Your task to perform on an android device: see creations saved in the google photos Image 0: 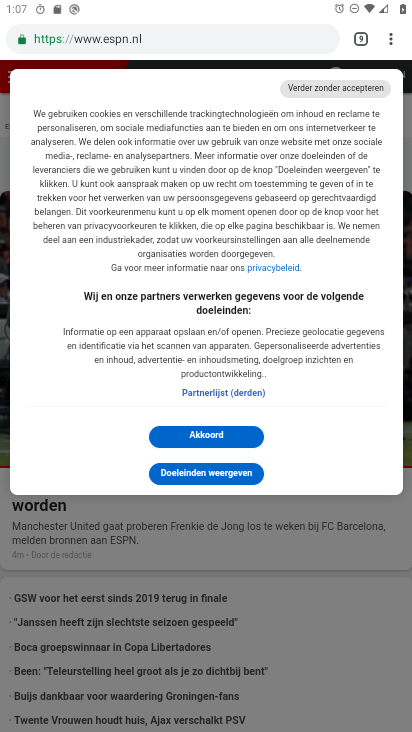
Step 0: press home button
Your task to perform on an android device: see creations saved in the google photos Image 1: 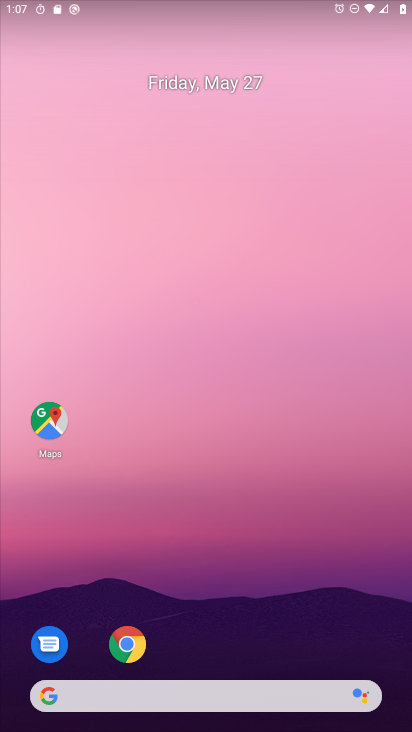
Step 1: drag from (221, 646) to (208, 233)
Your task to perform on an android device: see creations saved in the google photos Image 2: 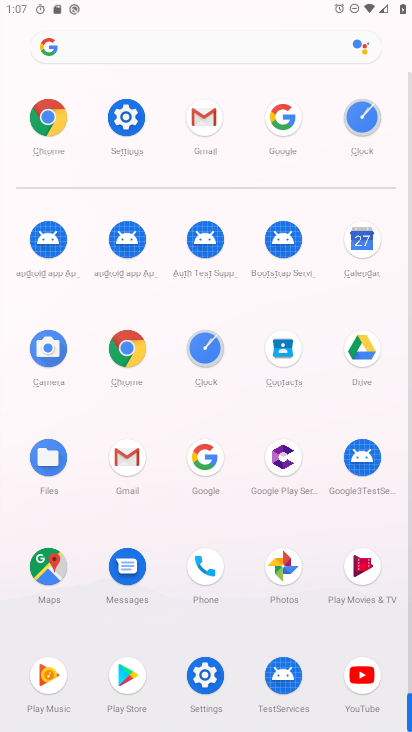
Step 2: click (268, 575)
Your task to perform on an android device: see creations saved in the google photos Image 3: 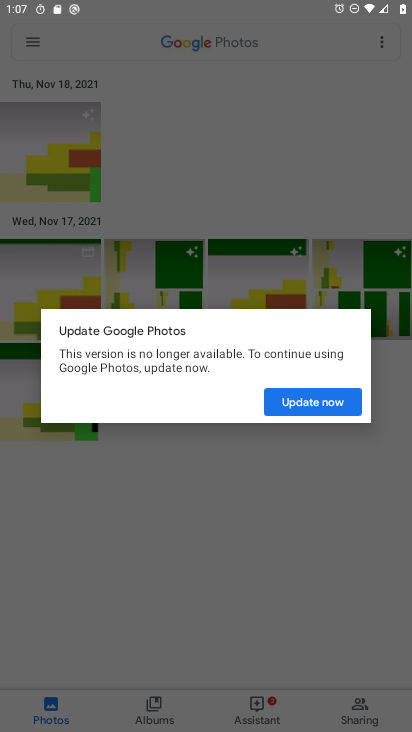
Step 3: click (291, 407)
Your task to perform on an android device: see creations saved in the google photos Image 4: 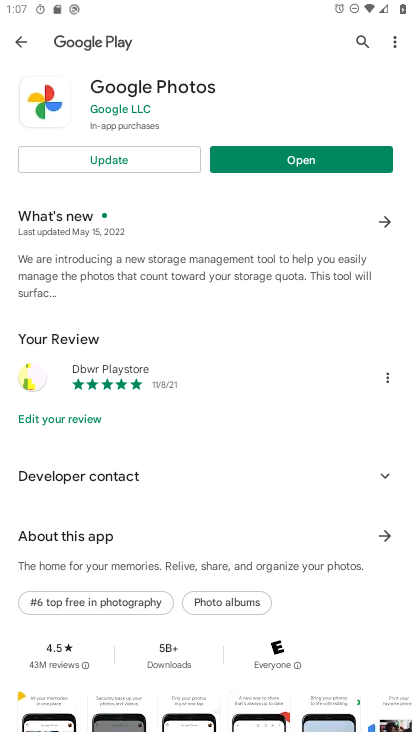
Step 4: click (275, 161)
Your task to perform on an android device: see creations saved in the google photos Image 5: 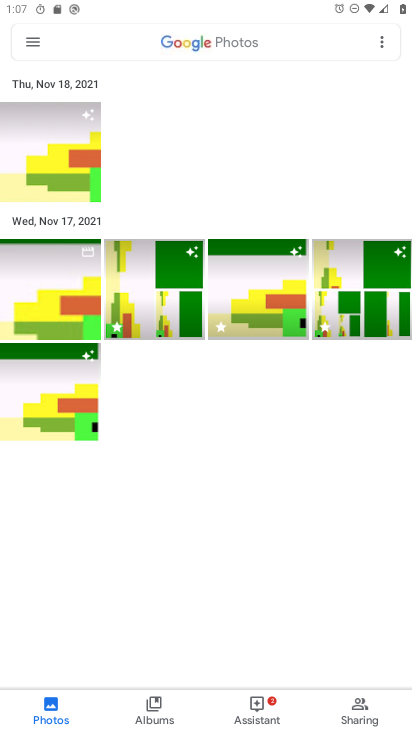
Step 5: click (214, 37)
Your task to perform on an android device: see creations saved in the google photos Image 6: 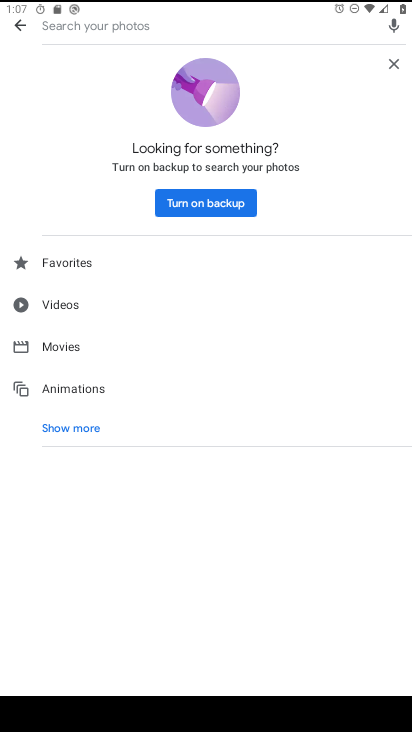
Step 6: click (93, 429)
Your task to perform on an android device: see creations saved in the google photos Image 7: 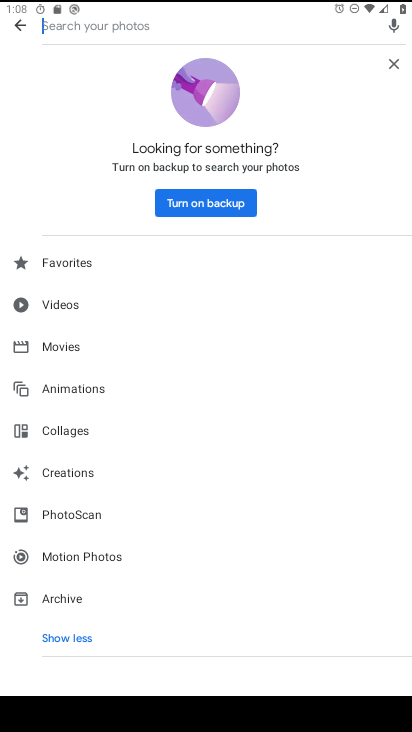
Step 7: click (126, 472)
Your task to perform on an android device: see creations saved in the google photos Image 8: 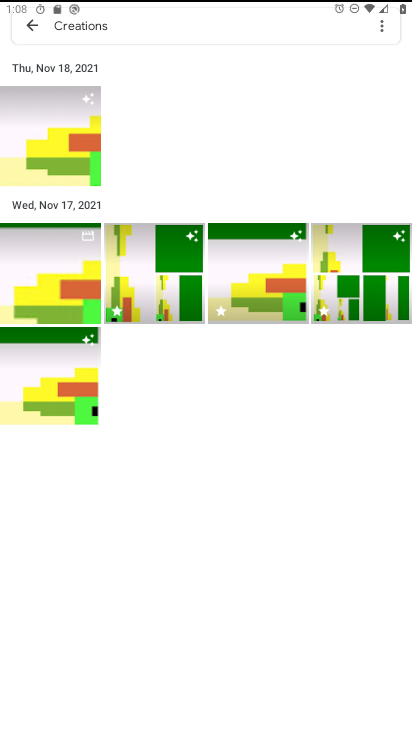
Step 8: task complete